Your task to perform on an android device: Open Maps and search for coffee Image 0: 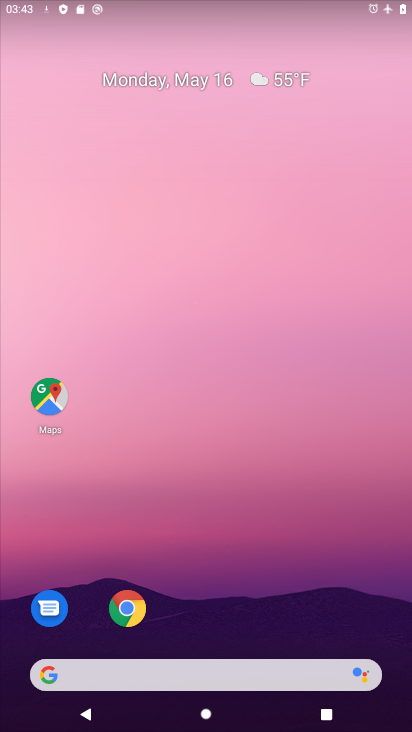
Step 0: click (48, 389)
Your task to perform on an android device: Open Maps and search for coffee Image 1: 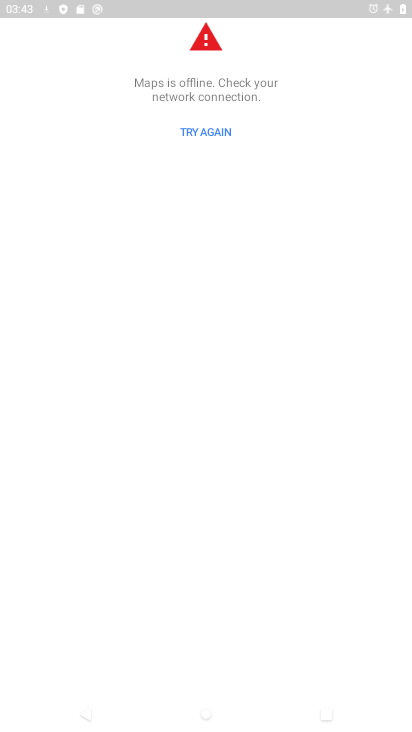
Step 1: task complete